Your task to perform on an android device: Go to internet settings Image 0: 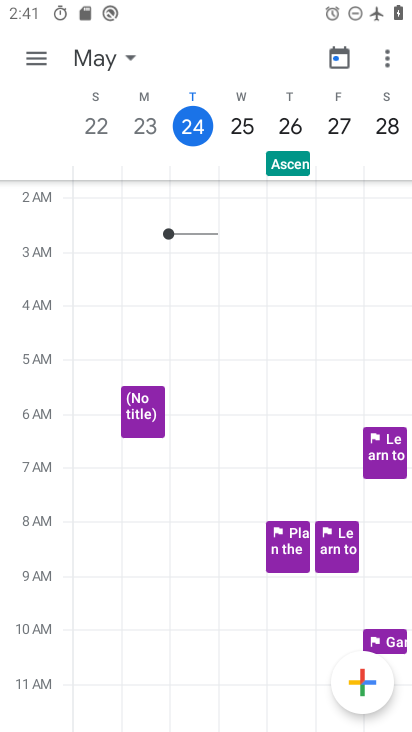
Step 0: press home button
Your task to perform on an android device: Go to internet settings Image 1: 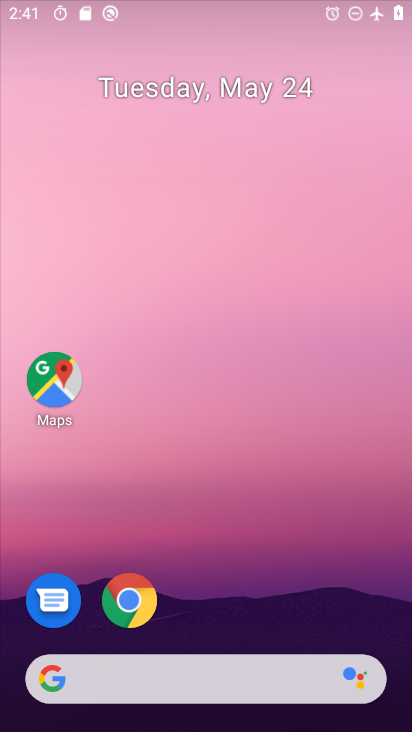
Step 1: drag from (235, 584) to (224, 190)
Your task to perform on an android device: Go to internet settings Image 2: 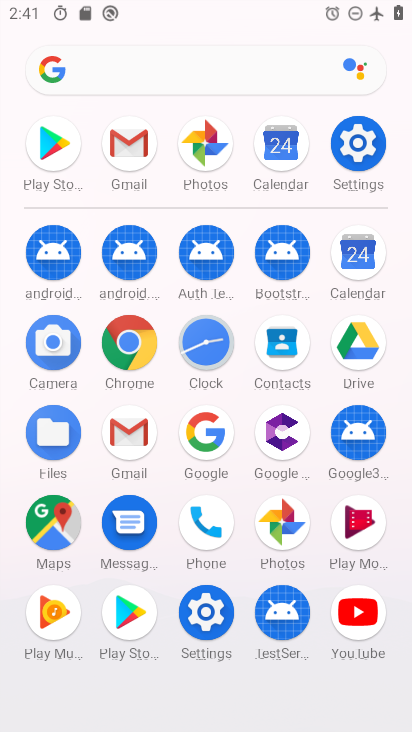
Step 2: click (345, 151)
Your task to perform on an android device: Go to internet settings Image 3: 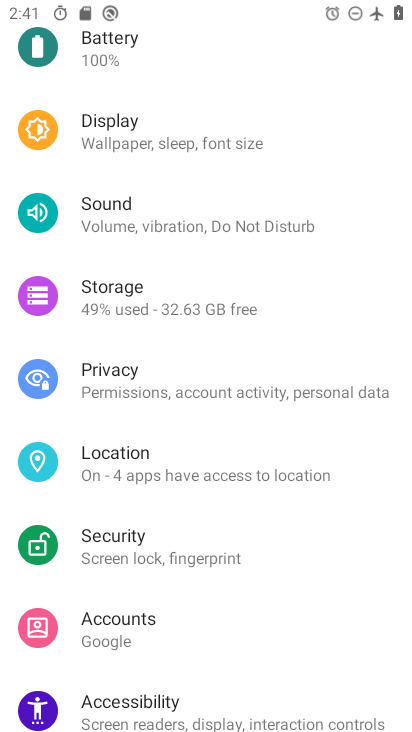
Step 3: drag from (192, 157) to (251, 570)
Your task to perform on an android device: Go to internet settings Image 4: 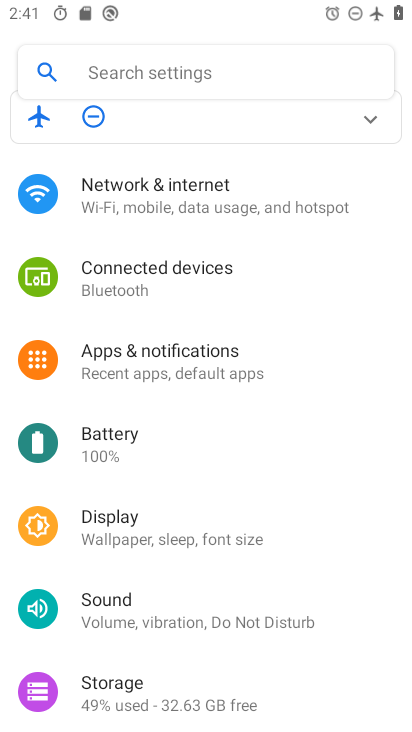
Step 4: click (175, 202)
Your task to perform on an android device: Go to internet settings Image 5: 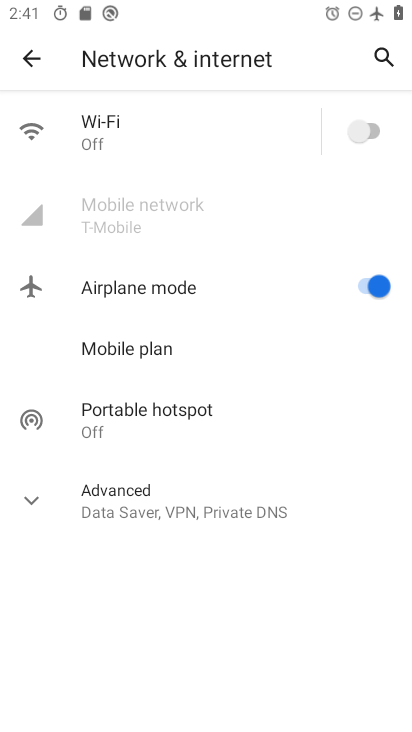
Step 5: click (155, 502)
Your task to perform on an android device: Go to internet settings Image 6: 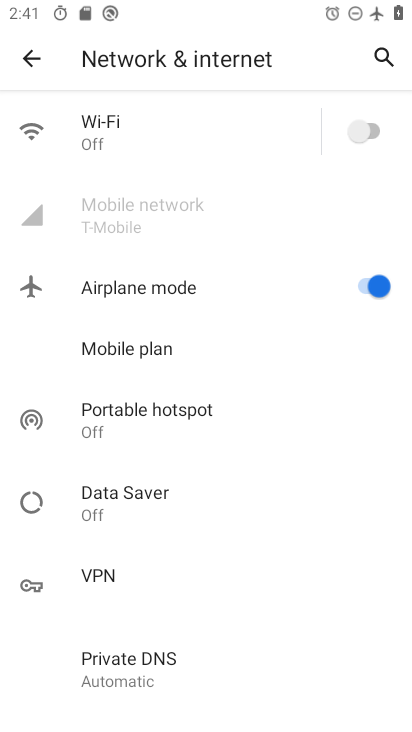
Step 6: task complete